Your task to perform on an android device: Open Google Chrome Image 0: 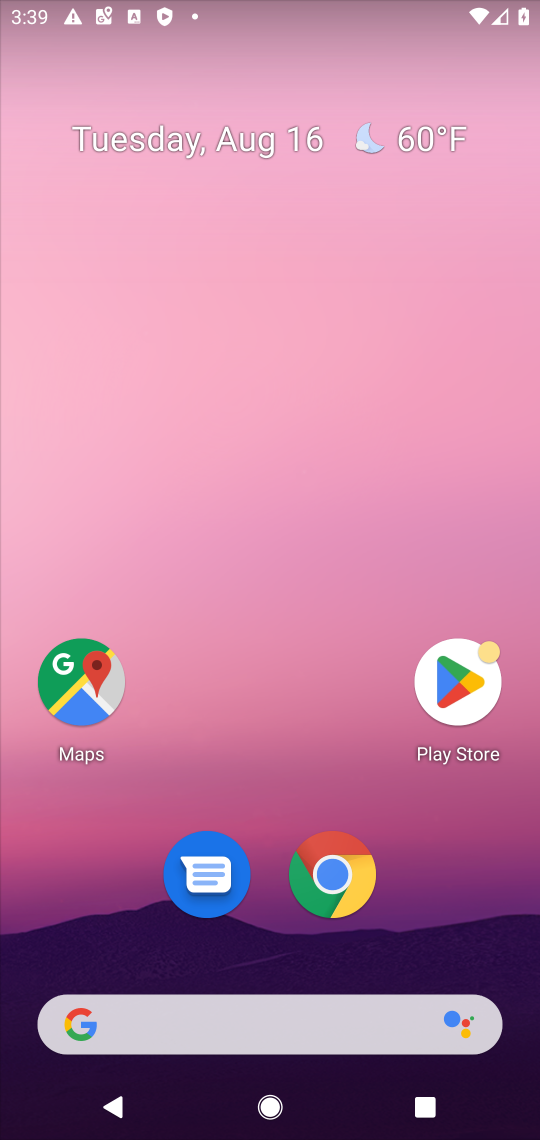
Step 0: click (318, 875)
Your task to perform on an android device: Open Google Chrome Image 1: 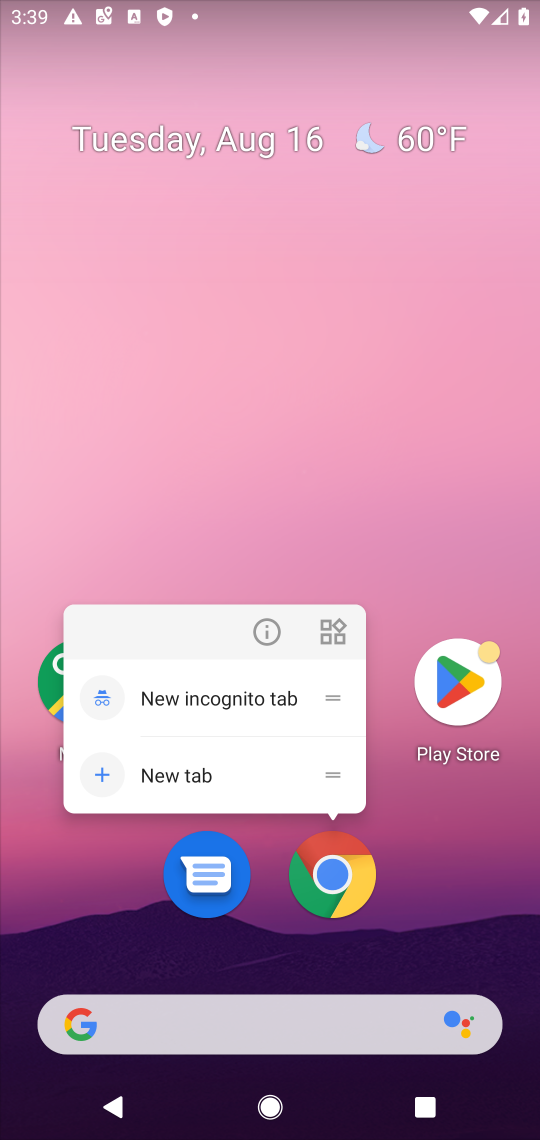
Step 1: click (344, 869)
Your task to perform on an android device: Open Google Chrome Image 2: 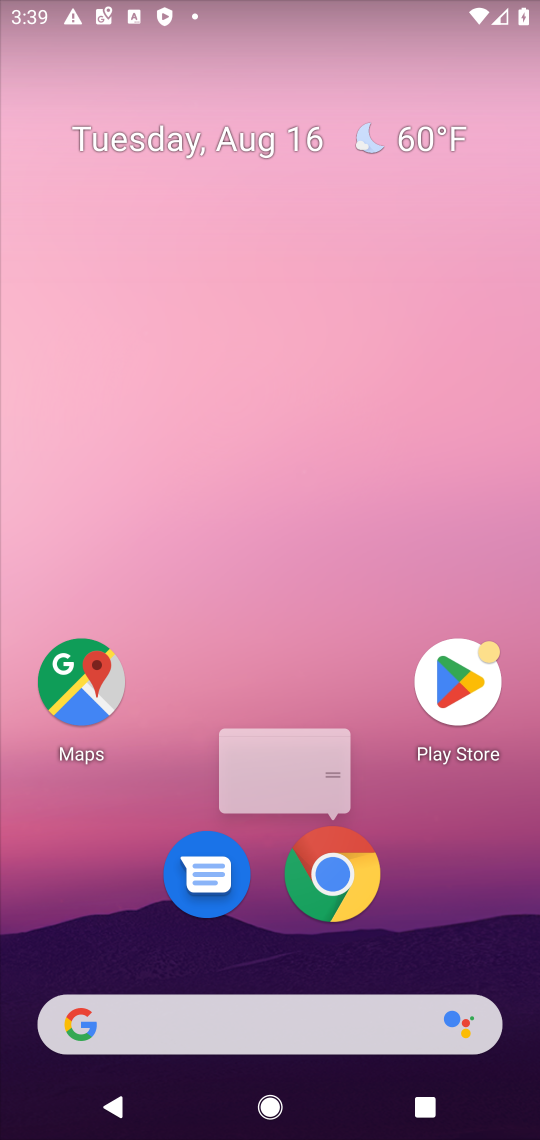
Step 2: click (329, 884)
Your task to perform on an android device: Open Google Chrome Image 3: 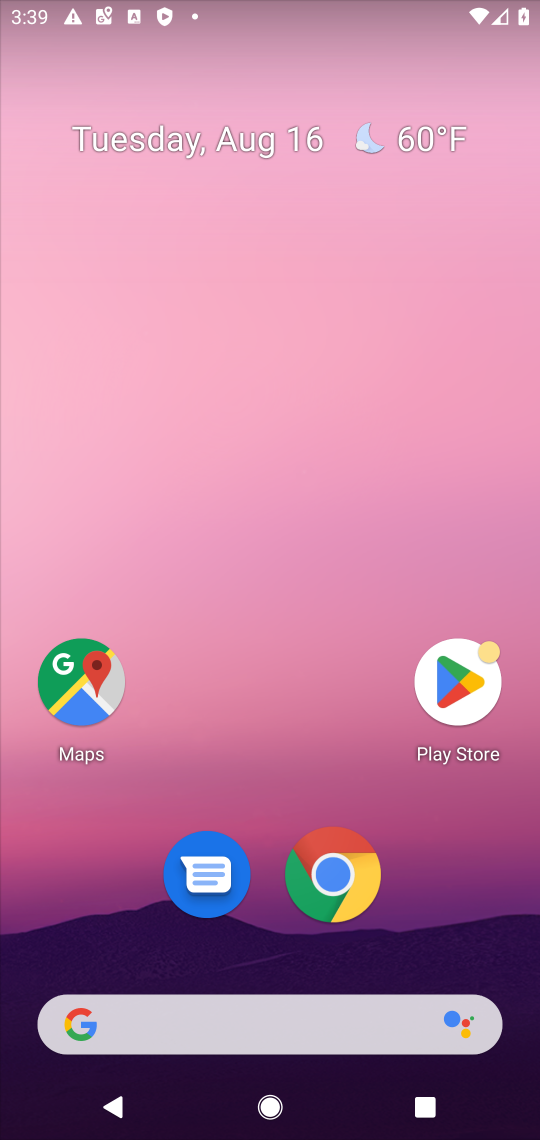
Step 3: click (329, 884)
Your task to perform on an android device: Open Google Chrome Image 4: 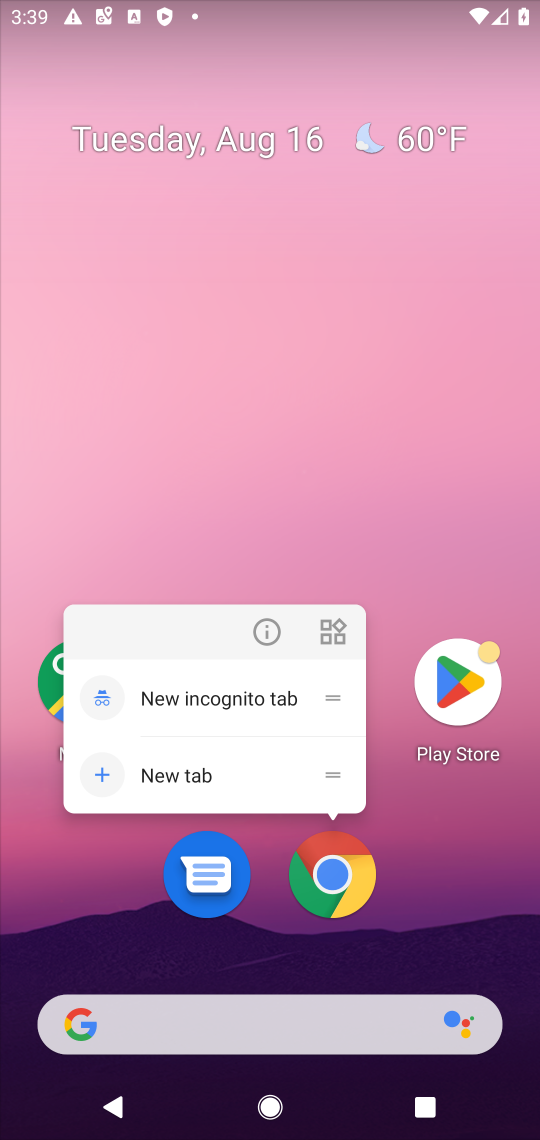
Step 4: click (329, 884)
Your task to perform on an android device: Open Google Chrome Image 5: 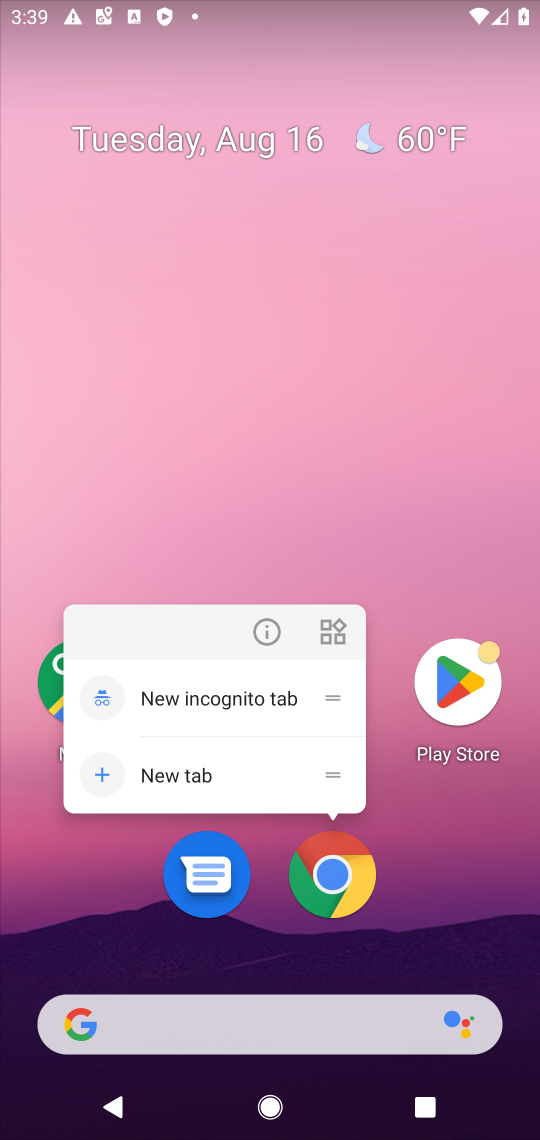
Step 5: click (329, 884)
Your task to perform on an android device: Open Google Chrome Image 6: 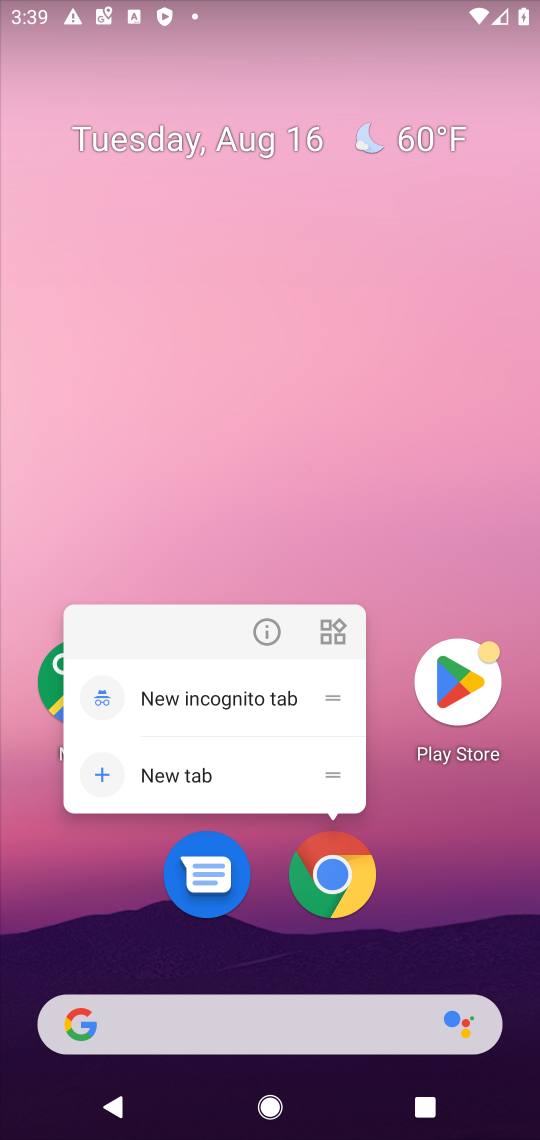
Step 6: click (329, 884)
Your task to perform on an android device: Open Google Chrome Image 7: 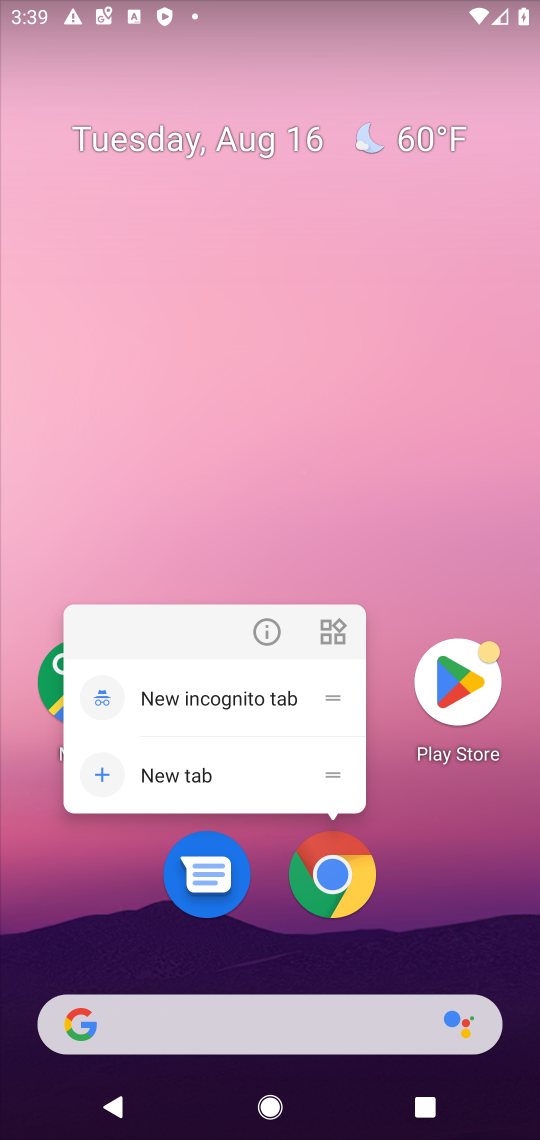
Step 7: click (329, 884)
Your task to perform on an android device: Open Google Chrome Image 8: 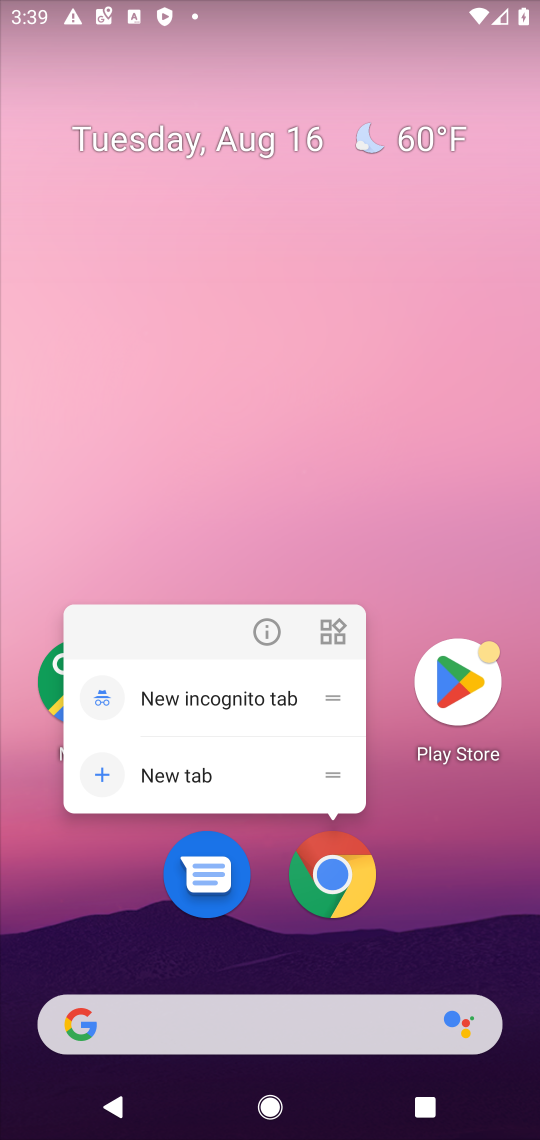
Step 8: click (323, 881)
Your task to perform on an android device: Open Google Chrome Image 9: 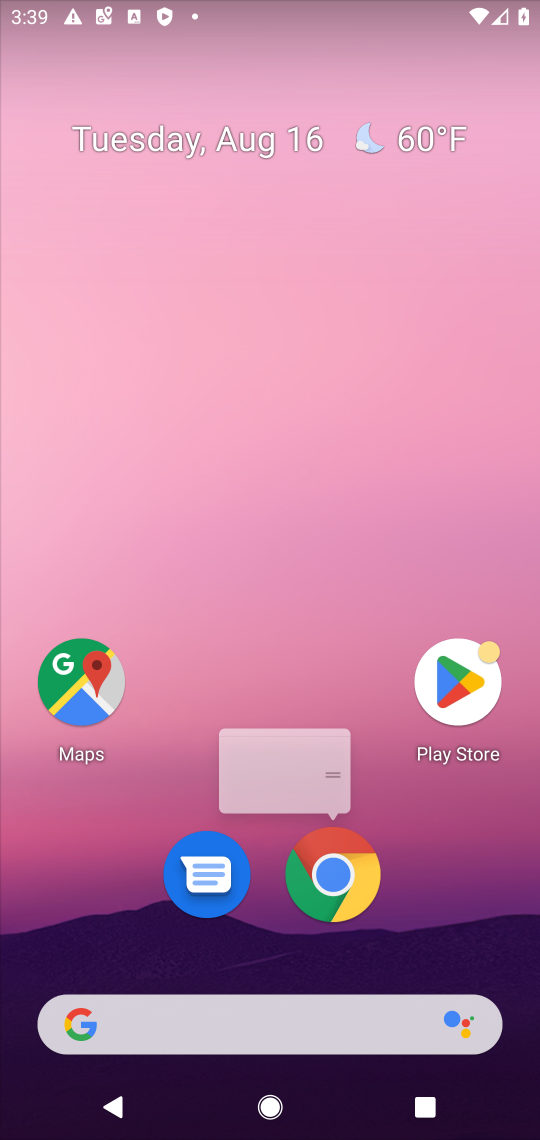
Step 9: click (323, 881)
Your task to perform on an android device: Open Google Chrome Image 10: 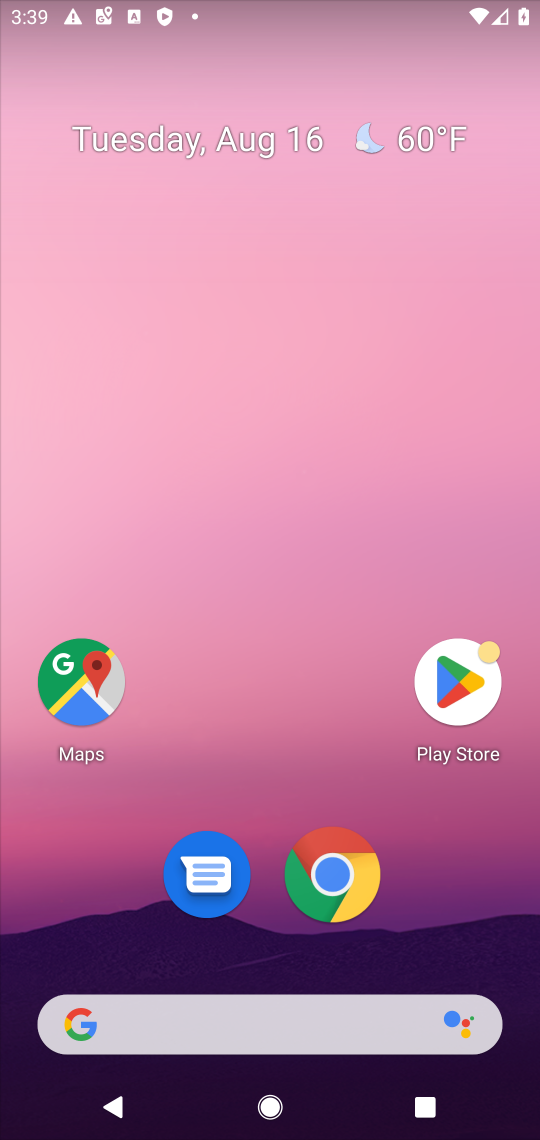
Step 10: click (323, 881)
Your task to perform on an android device: Open Google Chrome Image 11: 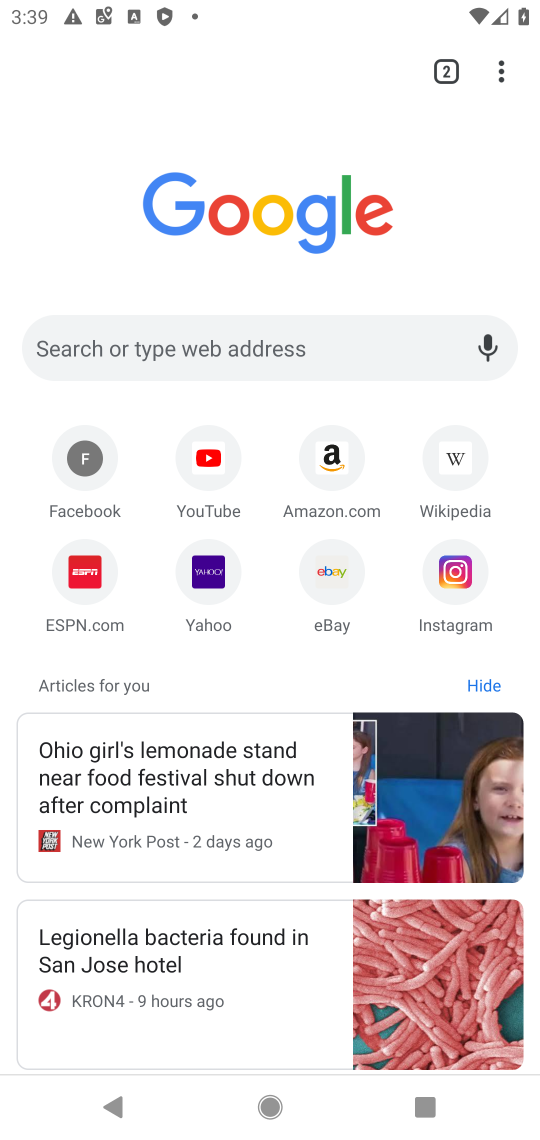
Step 11: task complete